Your task to perform on an android device: open a new tab in the chrome app Image 0: 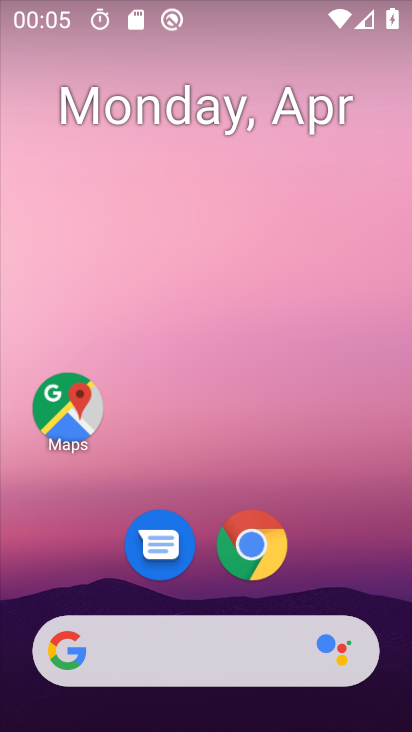
Step 0: drag from (326, 557) to (330, 199)
Your task to perform on an android device: open a new tab in the chrome app Image 1: 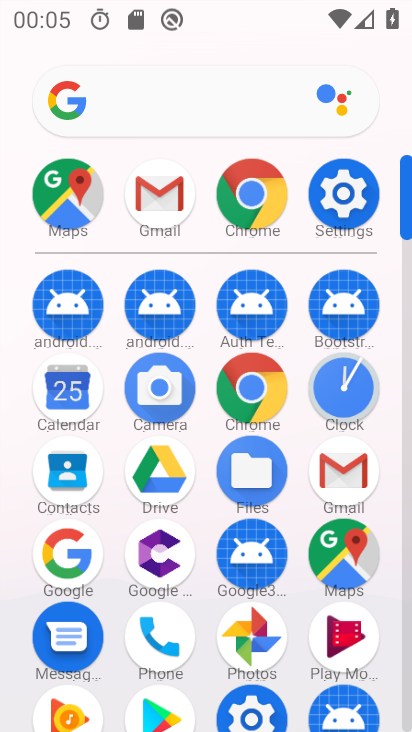
Step 1: click (243, 194)
Your task to perform on an android device: open a new tab in the chrome app Image 2: 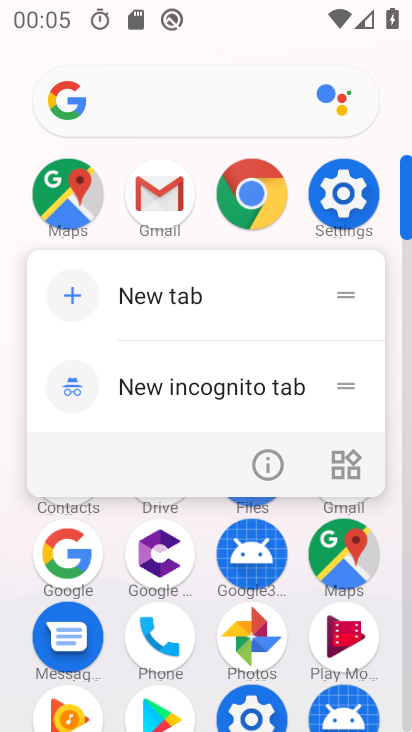
Step 2: click (243, 194)
Your task to perform on an android device: open a new tab in the chrome app Image 3: 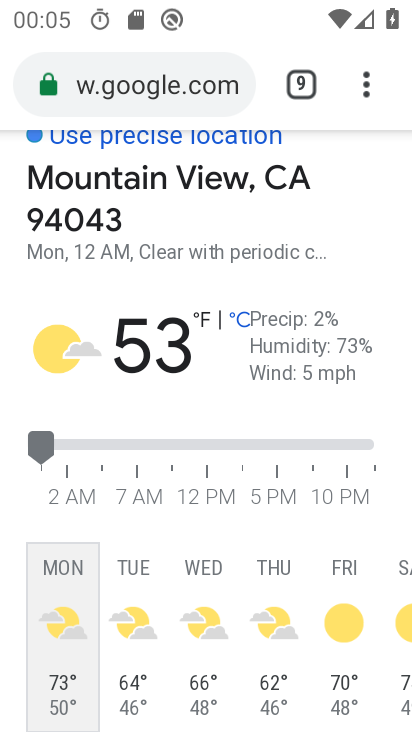
Step 3: click (354, 85)
Your task to perform on an android device: open a new tab in the chrome app Image 4: 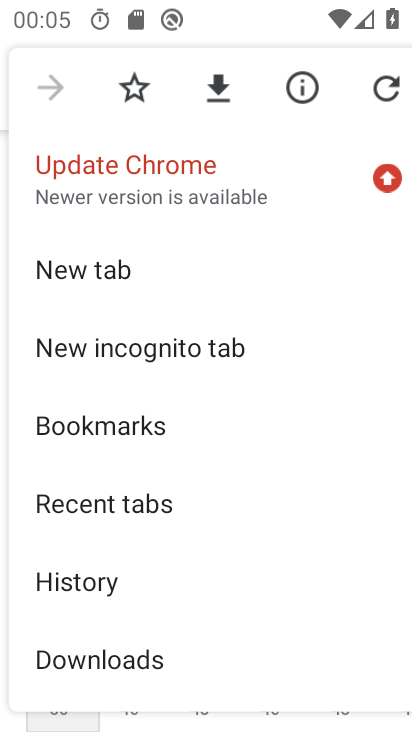
Step 4: click (138, 274)
Your task to perform on an android device: open a new tab in the chrome app Image 5: 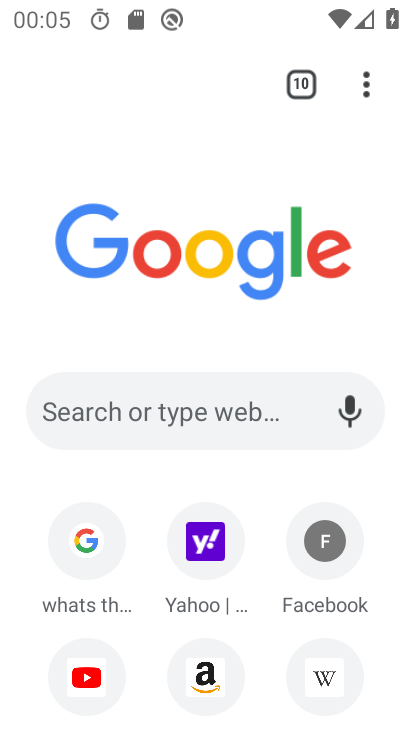
Step 5: task complete